Your task to perform on an android device: change the clock display to digital Image 0: 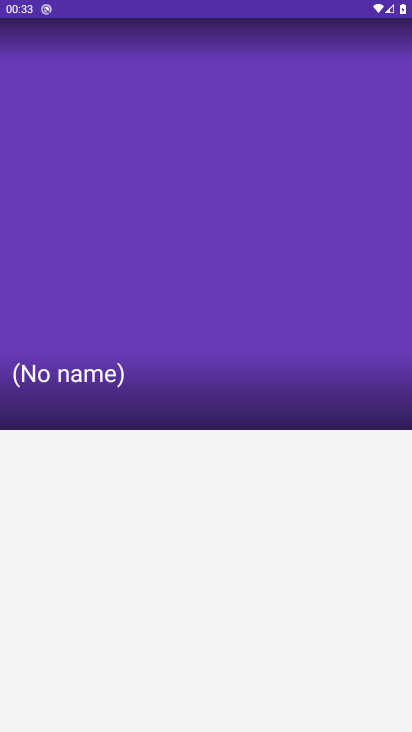
Step 0: drag from (217, 648) to (218, 166)
Your task to perform on an android device: change the clock display to digital Image 1: 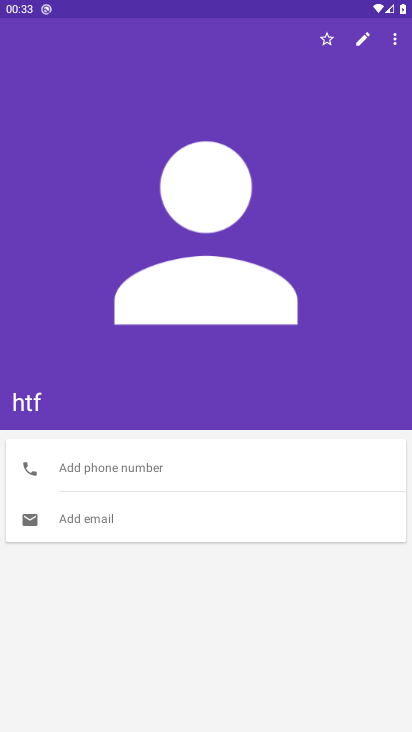
Step 1: press home button
Your task to perform on an android device: change the clock display to digital Image 2: 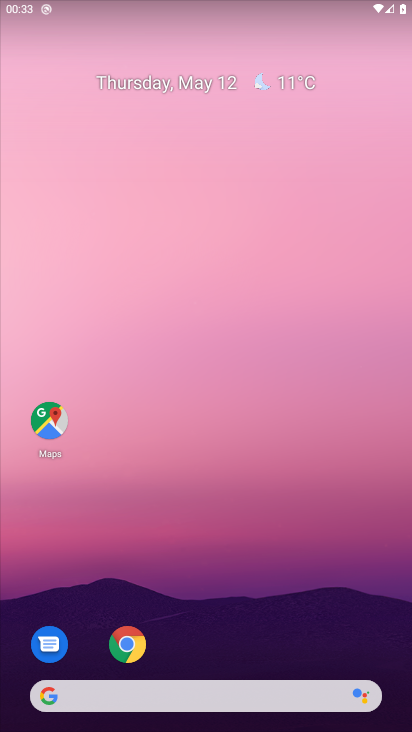
Step 2: drag from (208, 653) to (236, 130)
Your task to perform on an android device: change the clock display to digital Image 3: 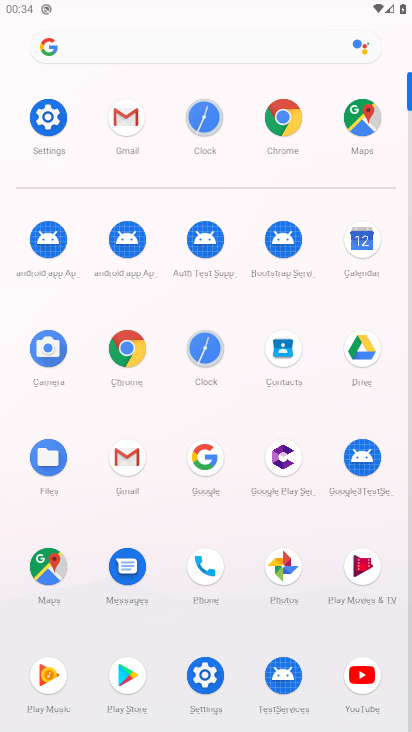
Step 3: click (203, 346)
Your task to perform on an android device: change the clock display to digital Image 4: 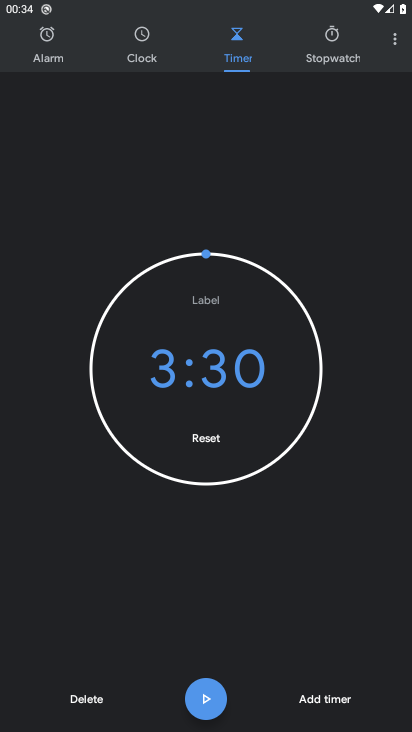
Step 4: click (76, 704)
Your task to perform on an android device: change the clock display to digital Image 5: 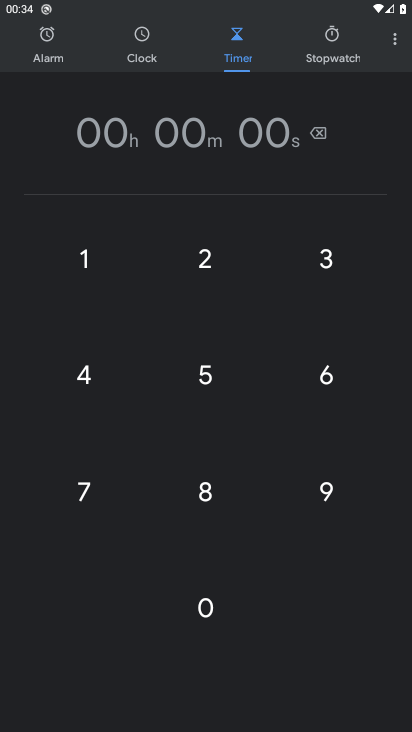
Step 5: click (44, 29)
Your task to perform on an android device: change the clock display to digital Image 6: 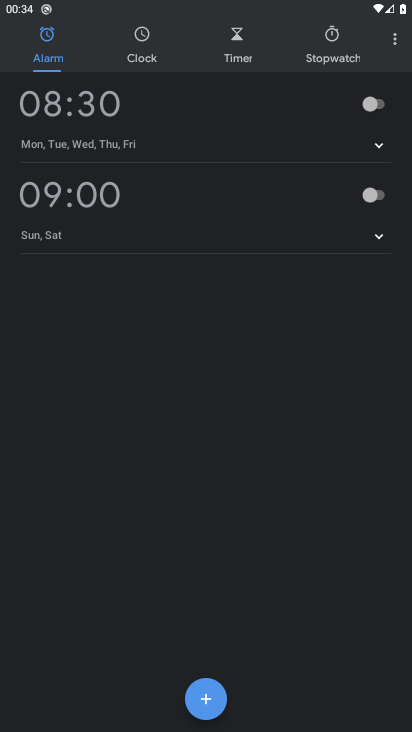
Step 6: click (398, 40)
Your task to perform on an android device: change the clock display to digital Image 7: 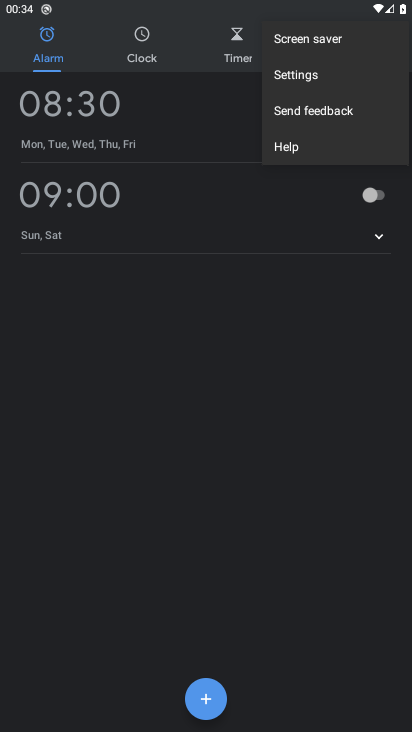
Step 7: click (326, 77)
Your task to perform on an android device: change the clock display to digital Image 8: 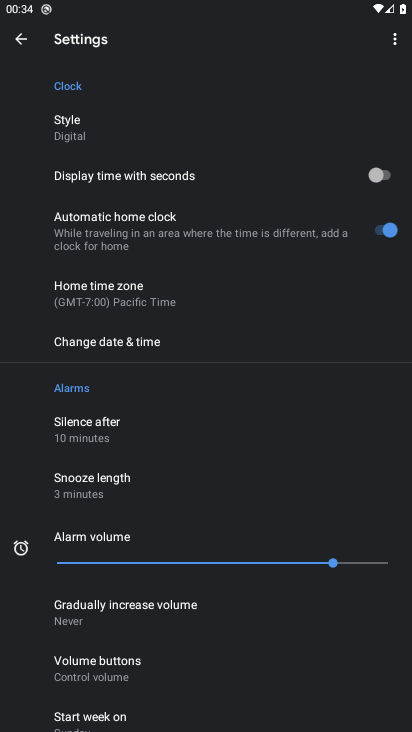
Step 8: click (93, 127)
Your task to perform on an android device: change the clock display to digital Image 9: 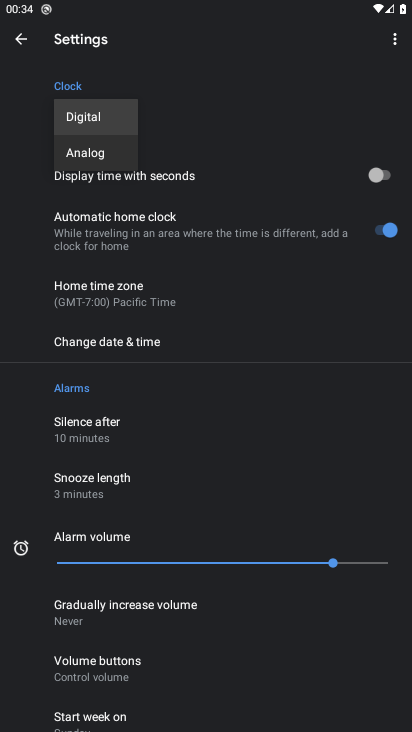
Step 9: click (107, 117)
Your task to perform on an android device: change the clock display to digital Image 10: 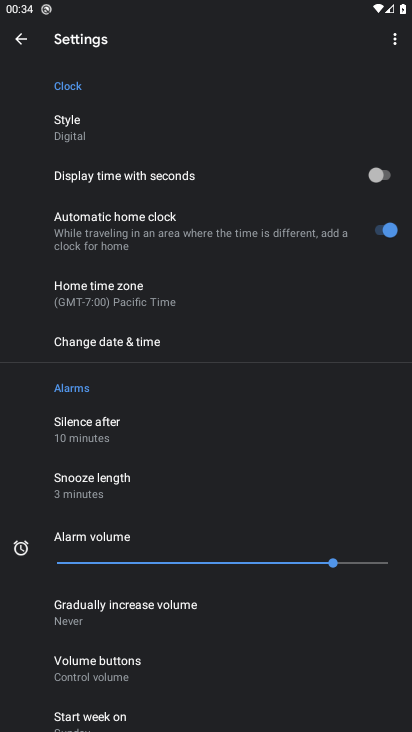
Step 10: task complete